Your task to perform on an android device: change the clock display to show seconds Image 0: 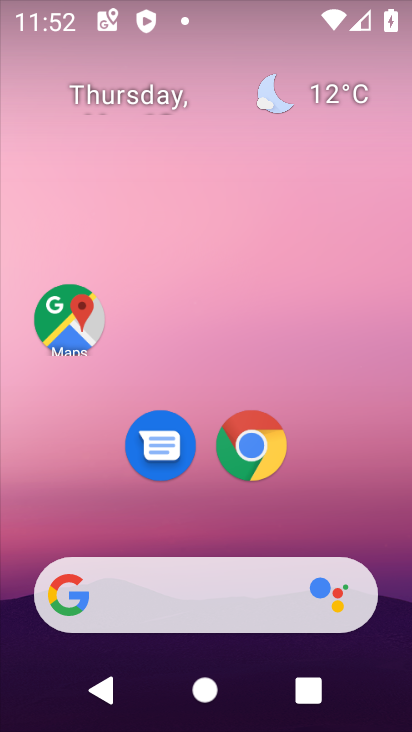
Step 0: drag from (170, 594) to (149, 57)
Your task to perform on an android device: change the clock display to show seconds Image 1: 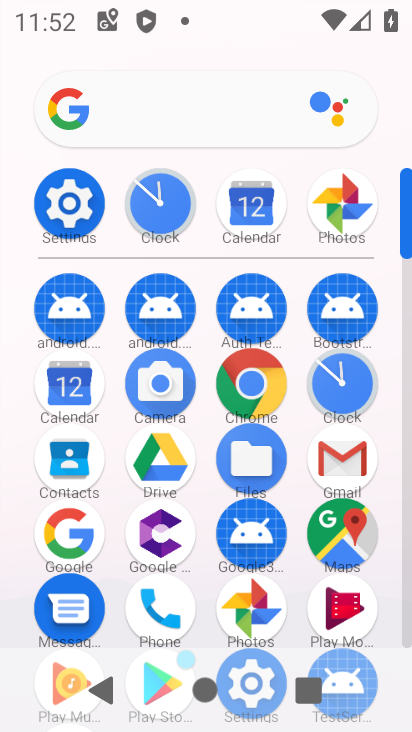
Step 1: click (332, 379)
Your task to perform on an android device: change the clock display to show seconds Image 2: 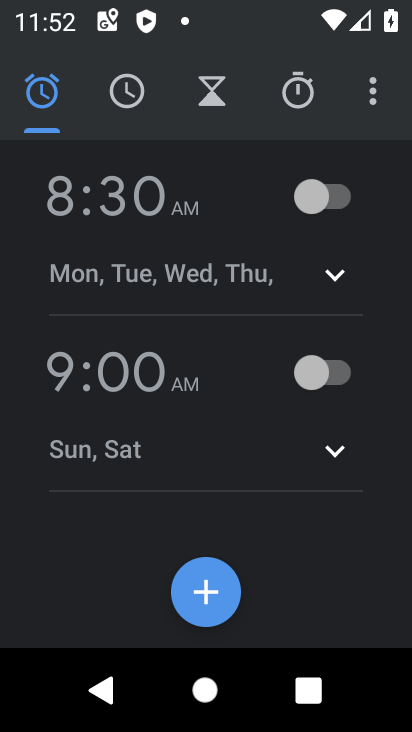
Step 2: click (378, 88)
Your task to perform on an android device: change the clock display to show seconds Image 3: 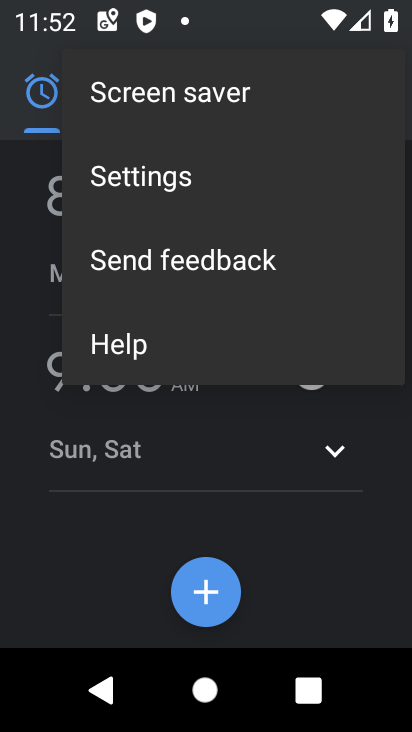
Step 3: click (185, 167)
Your task to perform on an android device: change the clock display to show seconds Image 4: 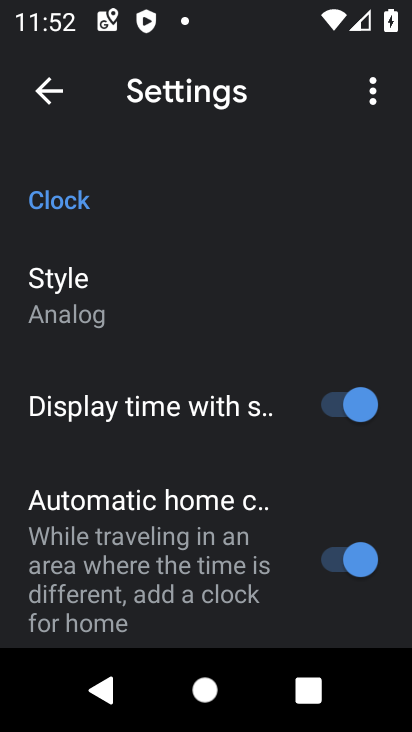
Step 4: task complete